Your task to perform on an android device: open app "Yahoo Mail" (install if not already installed) Image 0: 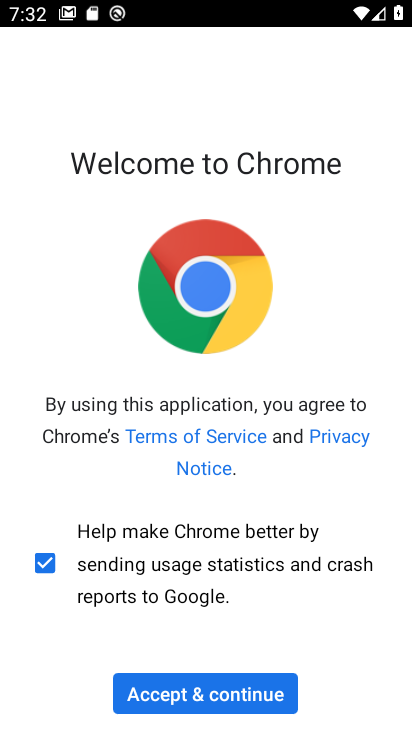
Step 0: press home button
Your task to perform on an android device: open app "Yahoo Mail" (install if not already installed) Image 1: 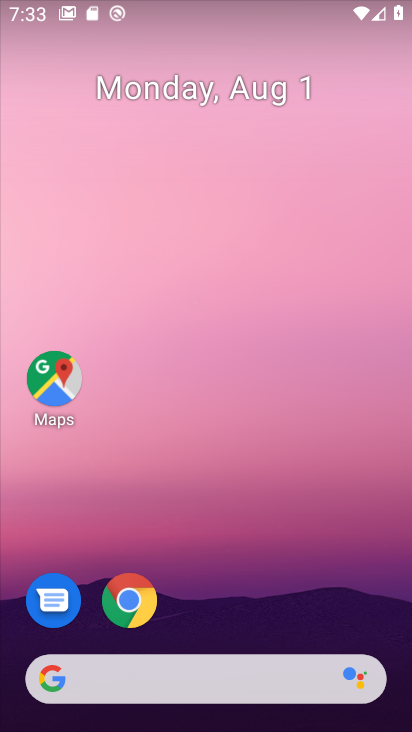
Step 1: drag from (207, 529) to (235, 30)
Your task to perform on an android device: open app "Yahoo Mail" (install if not already installed) Image 2: 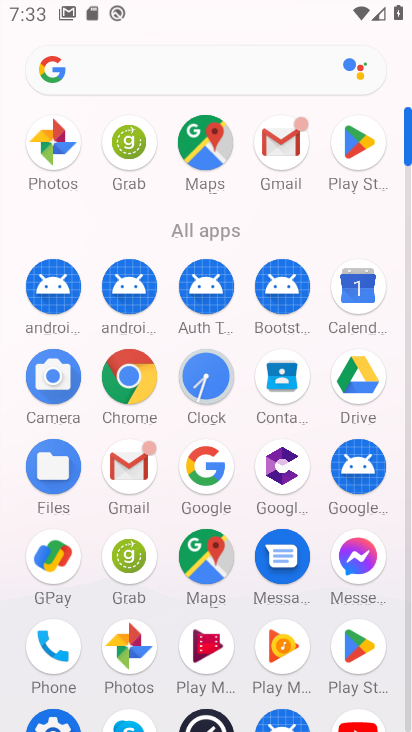
Step 2: click (354, 152)
Your task to perform on an android device: open app "Yahoo Mail" (install if not already installed) Image 3: 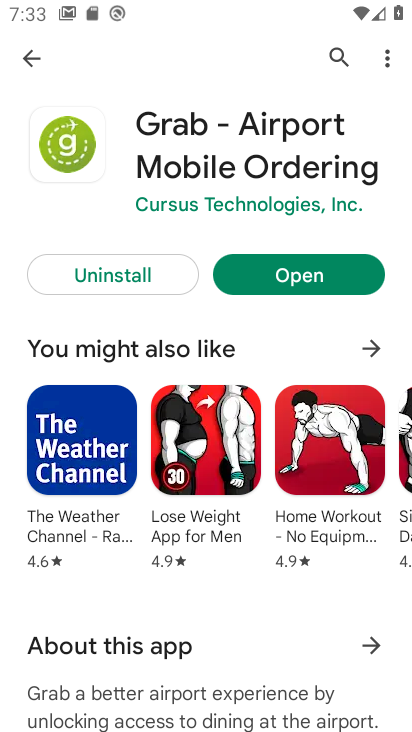
Step 3: click (36, 51)
Your task to perform on an android device: open app "Yahoo Mail" (install if not already installed) Image 4: 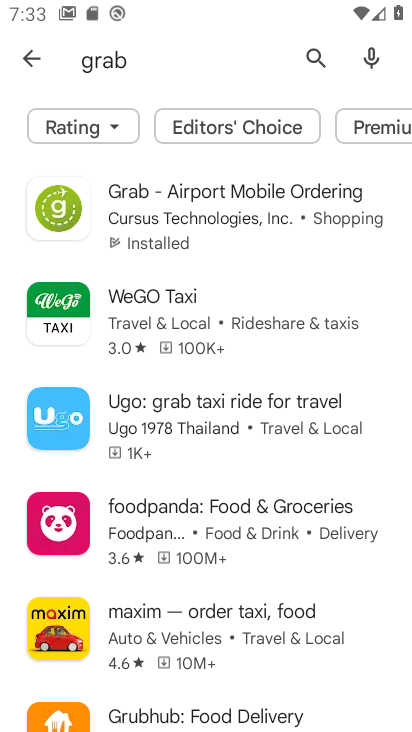
Step 4: click (31, 54)
Your task to perform on an android device: open app "Yahoo Mail" (install if not already installed) Image 5: 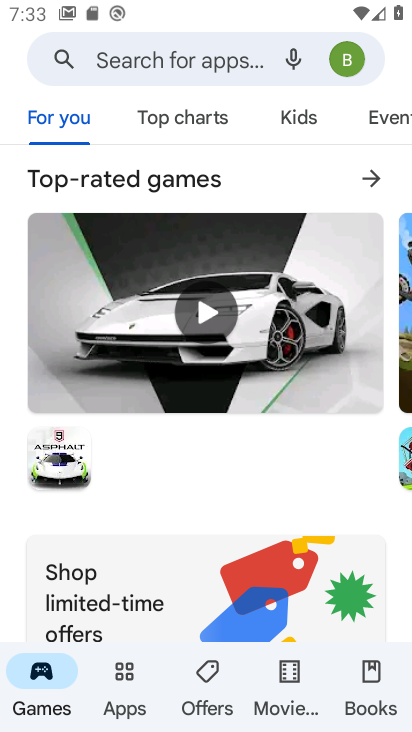
Step 5: click (210, 60)
Your task to perform on an android device: open app "Yahoo Mail" (install if not already installed) Image 6: 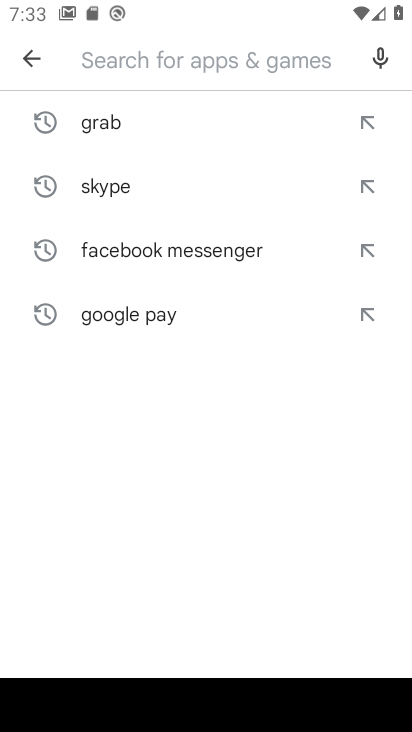
Step 6: type "yahoo mail"
Your task to perform on an android device: open app "Yahoo Mail" (install if not already installed) Image 7: 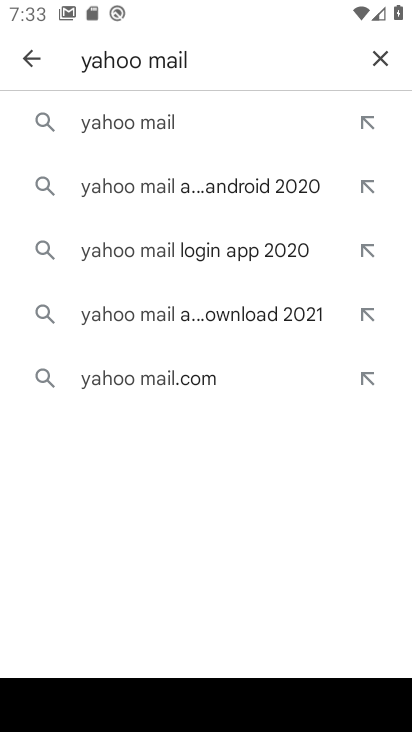
Step 7: click (161, 127)
Your task to perform on an android device: open app "Yahoo Mail" (install if not already installed) Image 8: 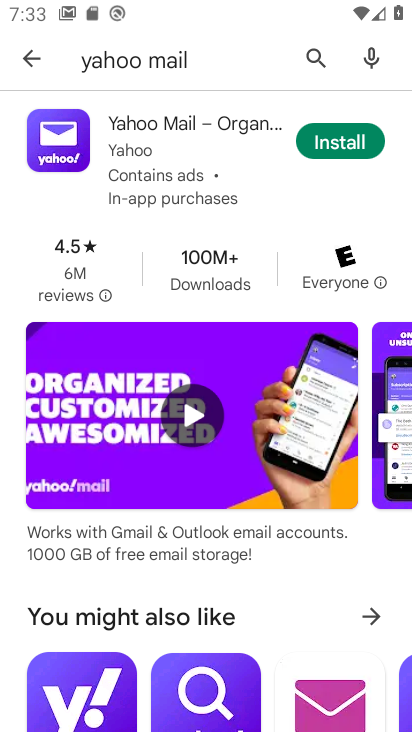
Step 8: click (345, 147)
Your task to perform on an android device: open app "Yahoo Mail" (install if not already installed) Image 9: 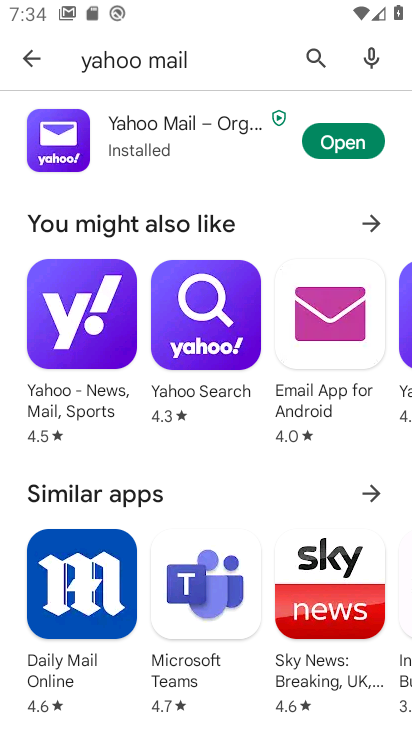
Step 9: click (355, 139)
Your task to perform on an android device: open app "Yahoo Mail" (install if not already installed) Image 10: 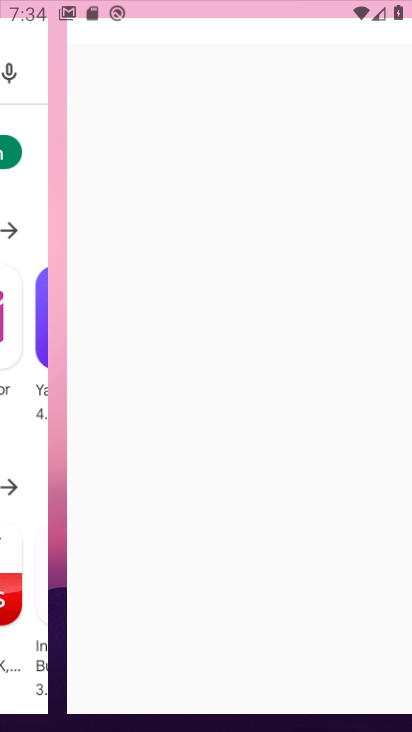
Step 10: task complete